Your task to perform on an android device: turn on the 24-hour format for clock Image 0: 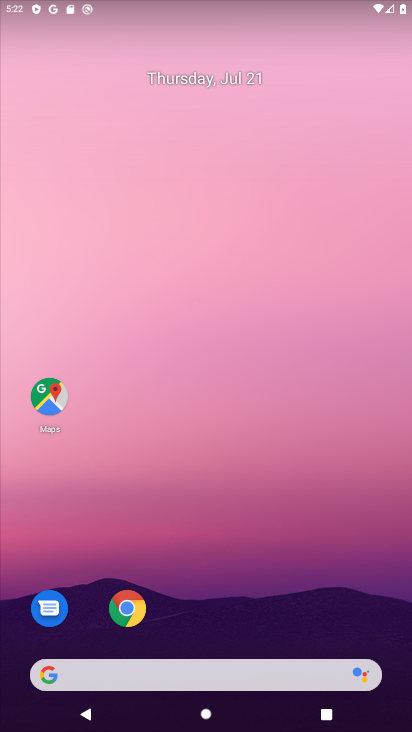
Step 0: drag from (272, 403) to (223, 18)
Your task to perform on an android device: turn on the 24-hour format for clock Image 1: 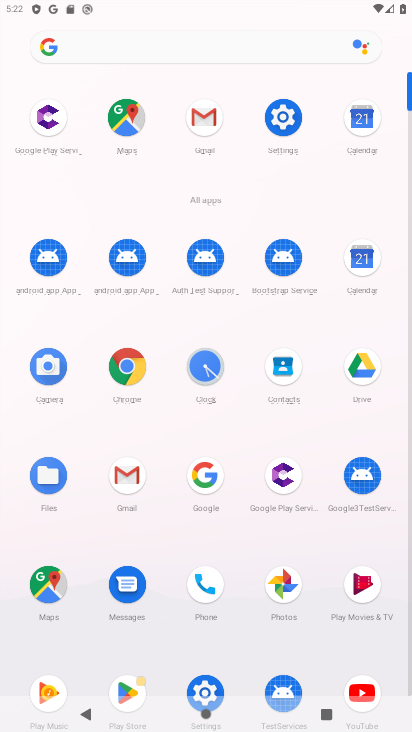
Step 1: click (209, 360)
Your task to perform on an android device: turn on the 24-hour format for clock Image 2: 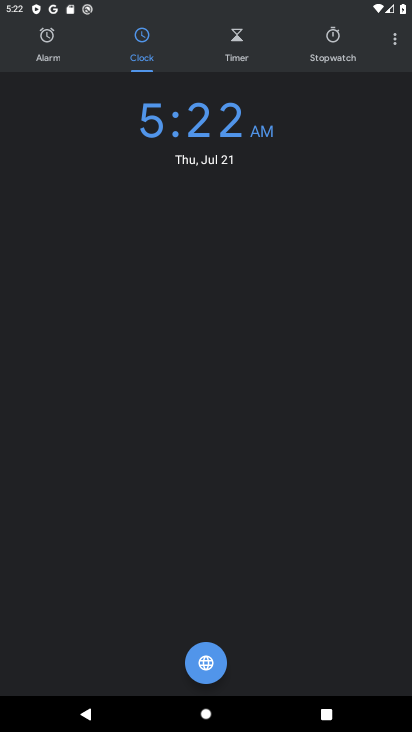
Step 2: click (397, 36)
Your task to perform on an android device: turn on the 24-hour format for clock Image 3: 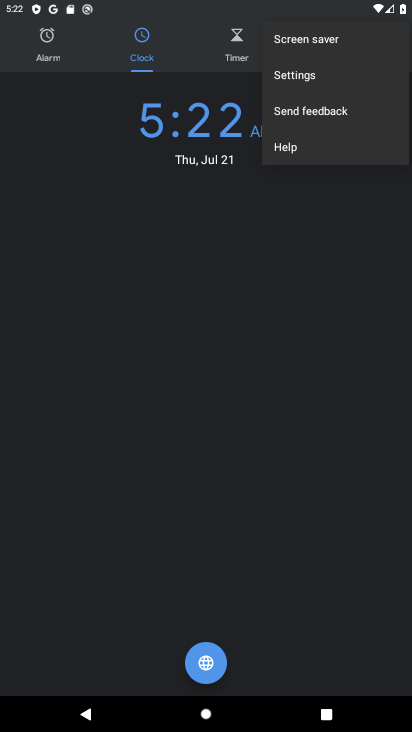
Step 3: click (310, 76)
Your task to perform on an android device: turn on the 24-hour format for clock Image 4: 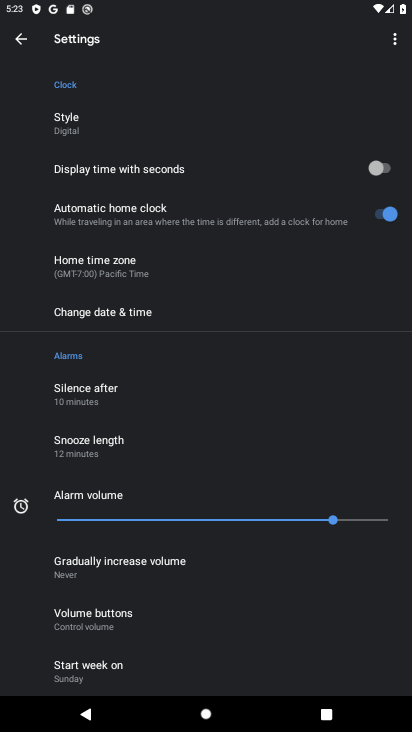
Step 4: click (110, 315)
Your task to perform on an android device: turn on the 24-hour format for clock Image 5: 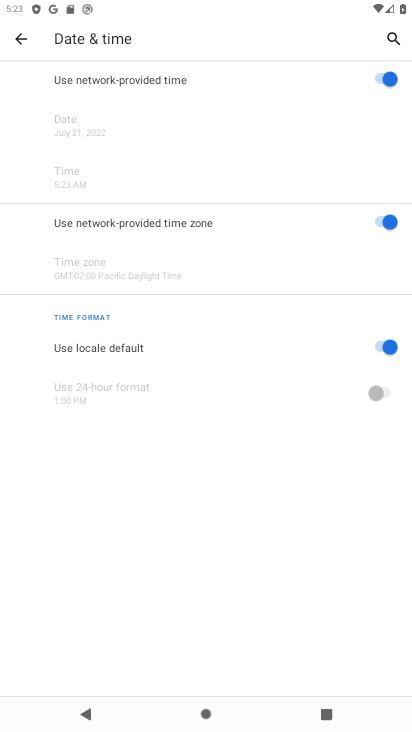
Step 5: click (385, 346)
Your task to perform on an android device: turn on the 24-hour format for clock Image 6: 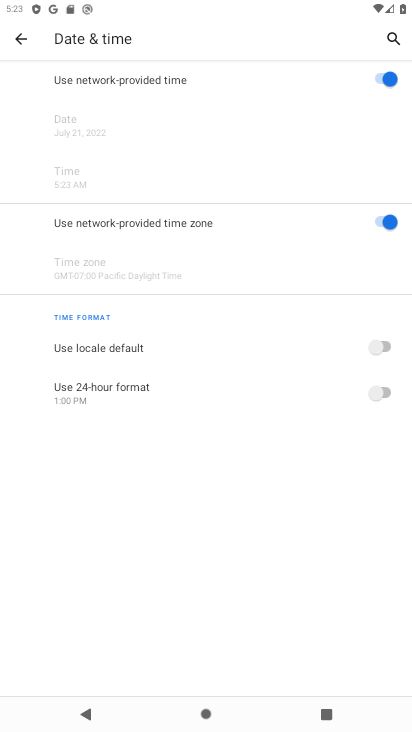
Step 6: click (377, 389)
Your task to perform on an android device: turn on the 24-hour format for clock Image 7: 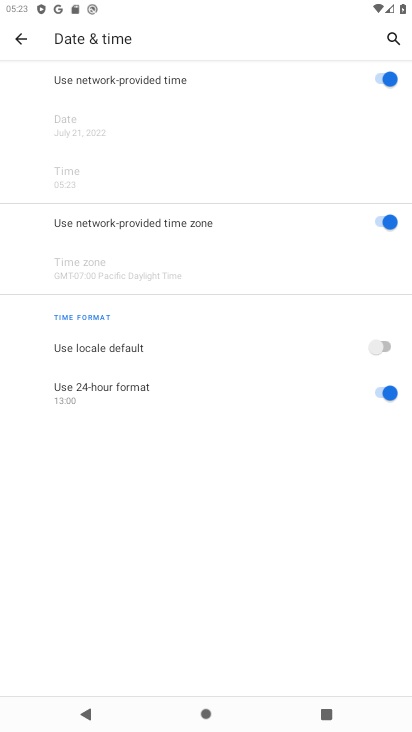
Step 7: task complete